Your task to perform on an android device: toggle translation in the chrome app Image 0: 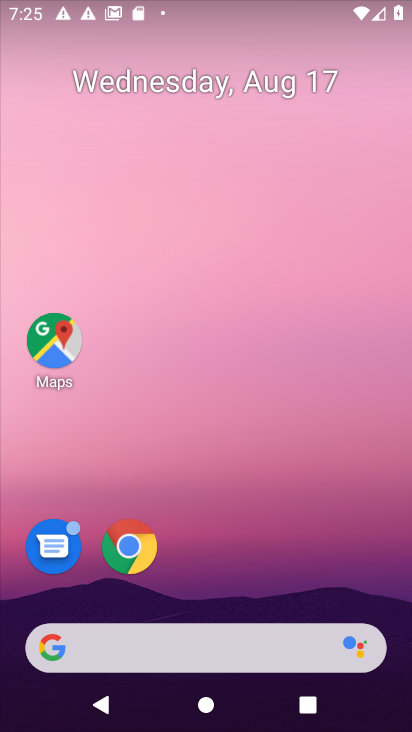
Step 0: click (130, 531)
Your task to perform on an android device: toggle translation in the chrome app Image 1: 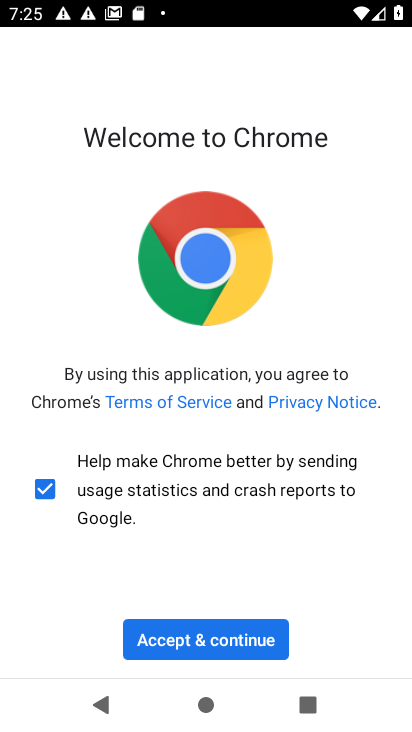
Step 1: click (227, 643)
Your task to perform on an android device: toggle translation in the chrome app Image 2: 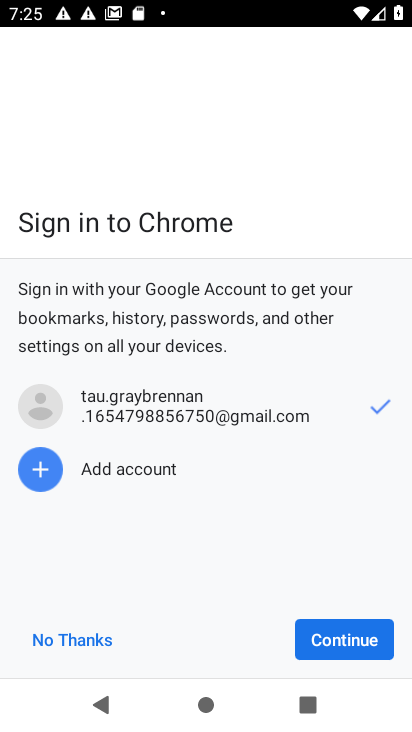
Step 2: click (295, 641)
Your task to perform on an android device: toggle translation in the chrome app Image 3: 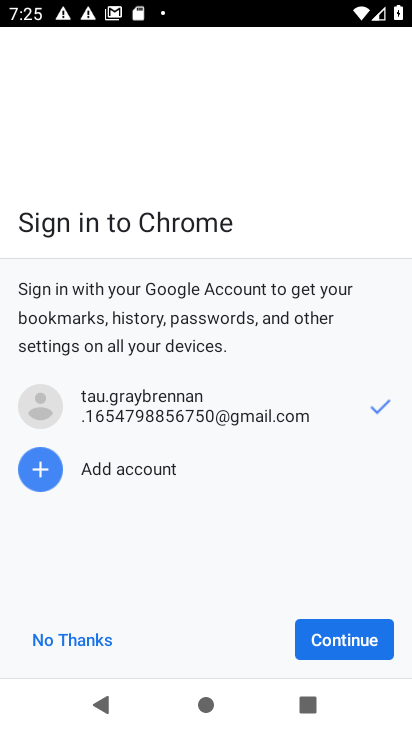
Step 3: click (327, 641)
Your task to perform on an android device: toggle translation in the chrome app Image 4: 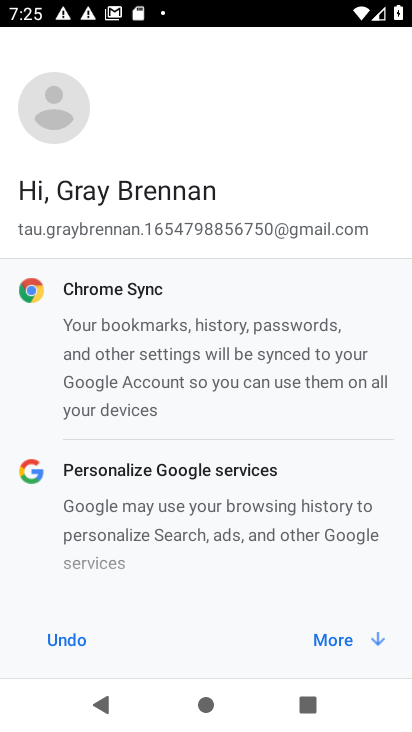
Step 4: click (327, 641)
Your task to perform on an android device: toggle translation in the chrome app Image 5: 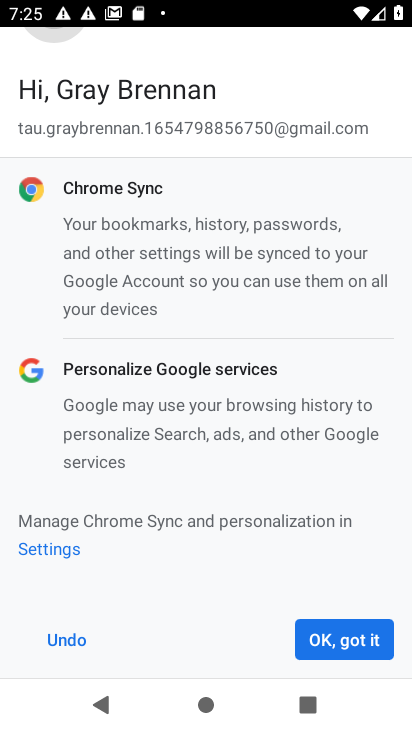
Step 5: click (327, 641)
Your task to perform on an android device: toggle translation in the chrome app Image 6: 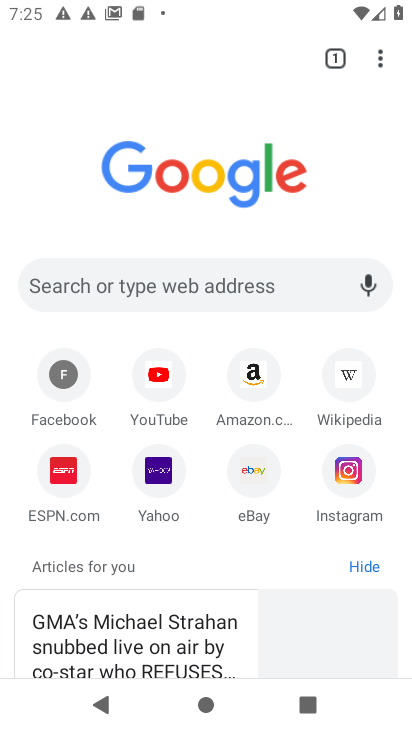
Step 6: click (374, 66)
Your task to perform on an android device: toggle translation in the chrome app Image 7: 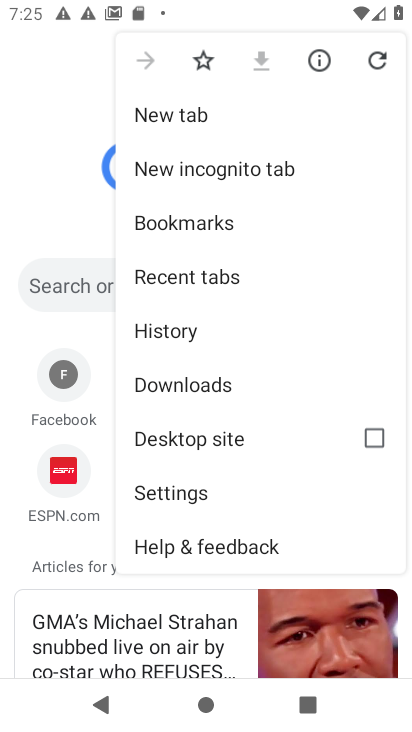
Step 7: click (222, 486)
Your task to perform on an android device: toggle translation in the chrome app Image 8: 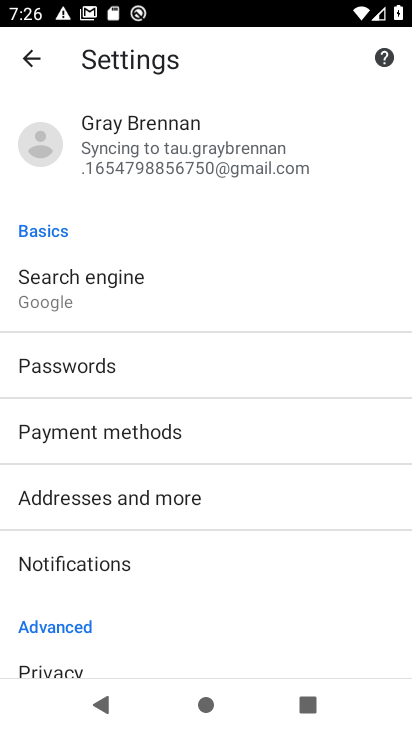
Step 8: drag from (202, 579) to (206, 232)
Your task to perform on an android device: toggle translation in the chrome app Image 9: 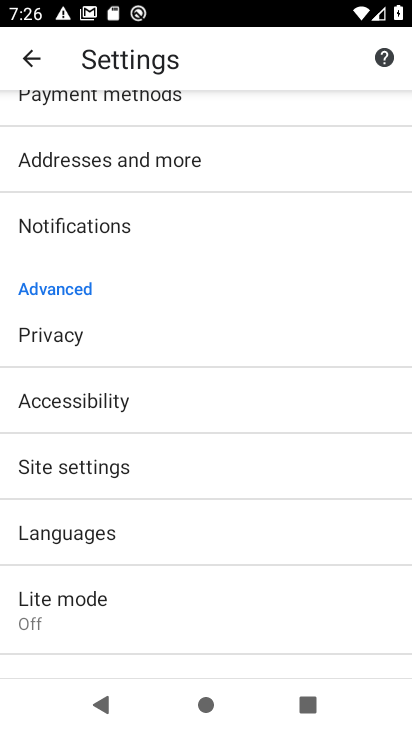
Step 9: click (184, 553)
Your task to perform on an android device: toggle translation in the chrome app Image 10: 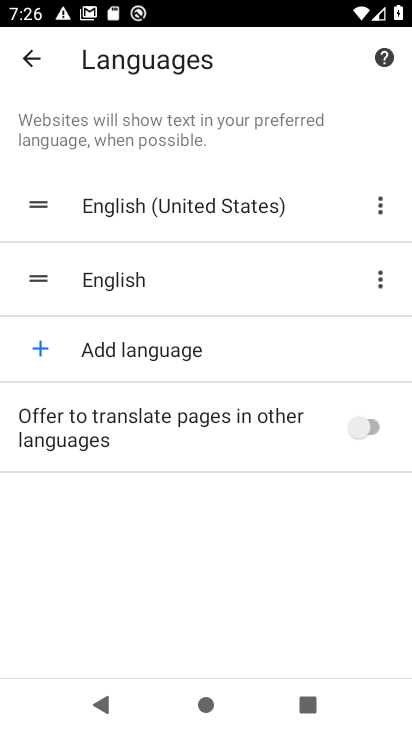
Step 10: click (360, 444)
Your task to perform on an android device: toggle translation in the chrome app Image 11: 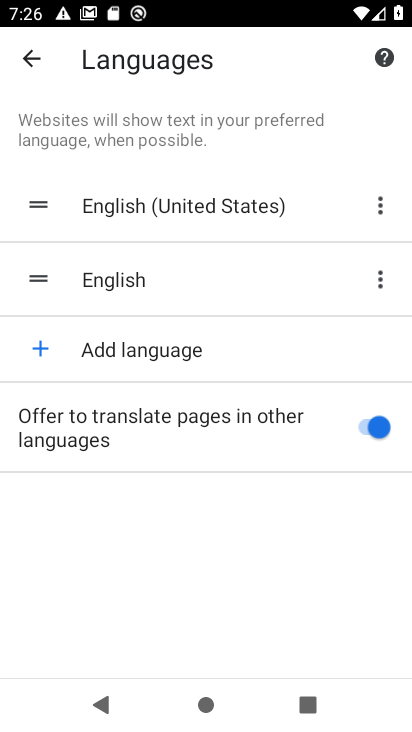
Step 11: task complete